Your task to perform on an android device: turn on airplane mode Image 0: 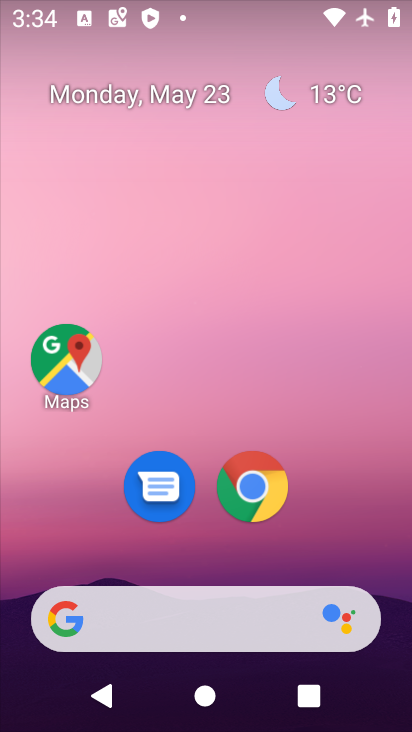
Step 0: drag from (388, 607) to (344, 66)
Your task to perform on an android device: turn on airplane mode Image 1: 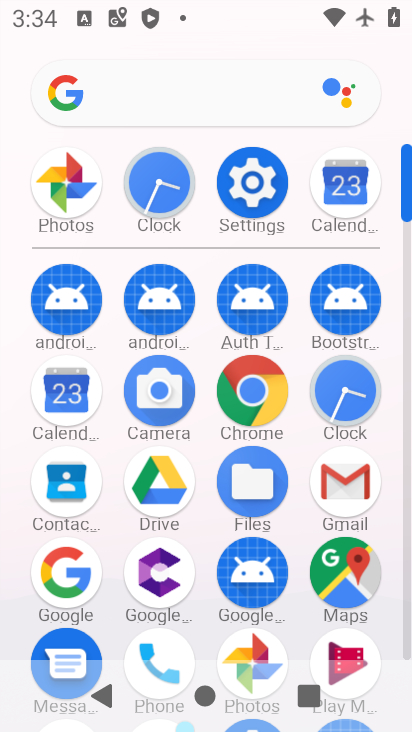
Step 1: click (410, 646)
Your task to perform on an android device: turn on airplane mode Image 2: 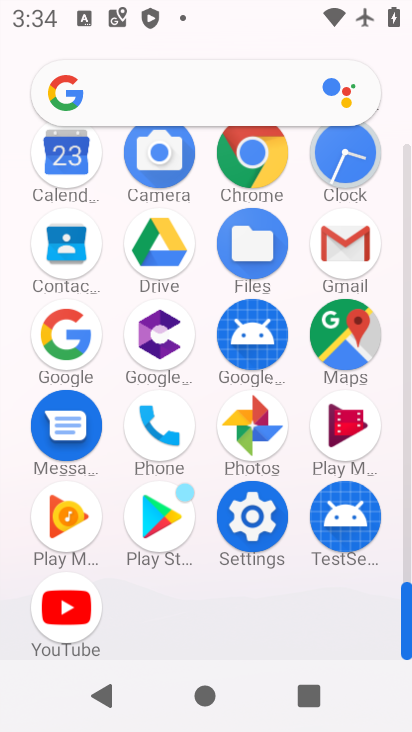
Step 2: click (247, 515)
Your task to perform on an android device: turn on airplane mode Image 3: 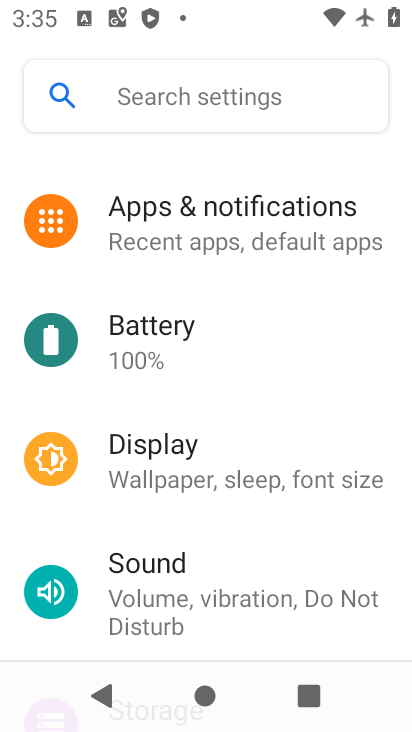
Step 3: drag from (203, 249) to (265, 653)
Your task to perform on an android device: turn on airplane mode Image 4: 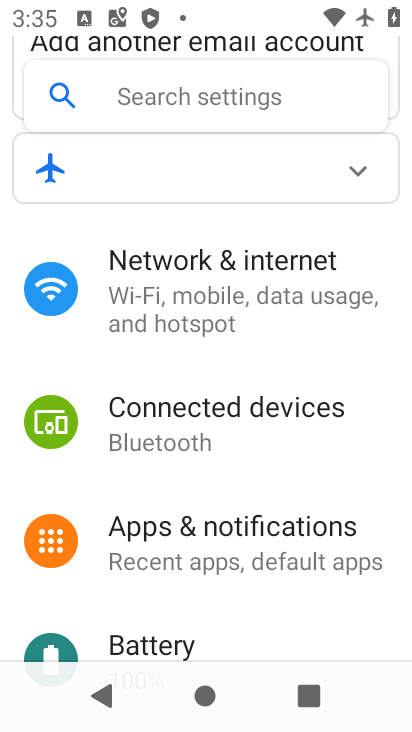
Step 4: click (225, 298)
Your task to perform on an android device: turn on airplane mode Image 5: 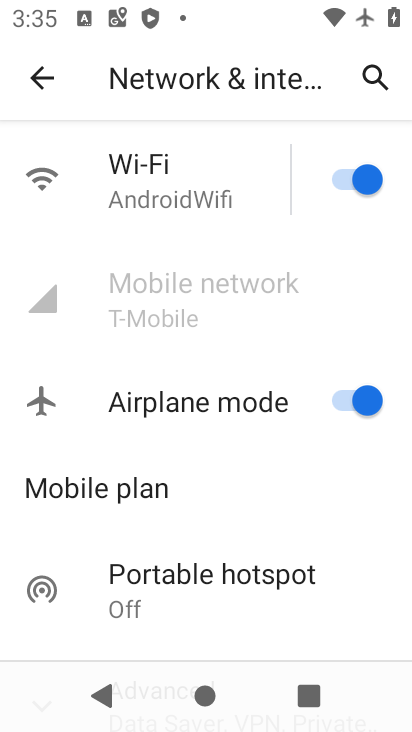
Step 5: task complete